Your task to perform on an android device: Open the calendar and show me this week's events? Image 0: 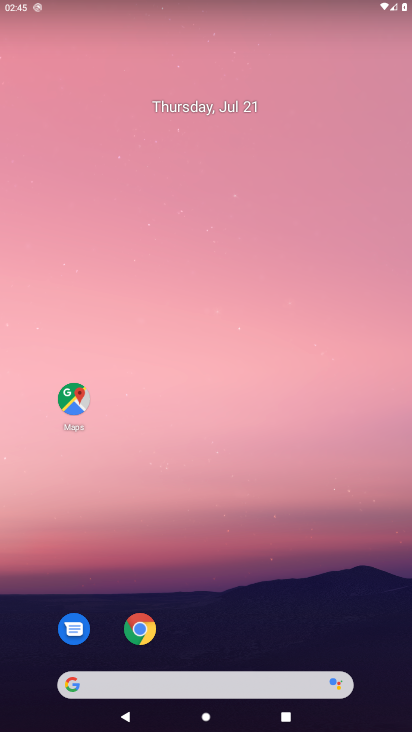
Step 0: drag from (55, 681) to (138, 296)
Your task to perform on an android device: Open the calendar and show me this week's events? Image 1: 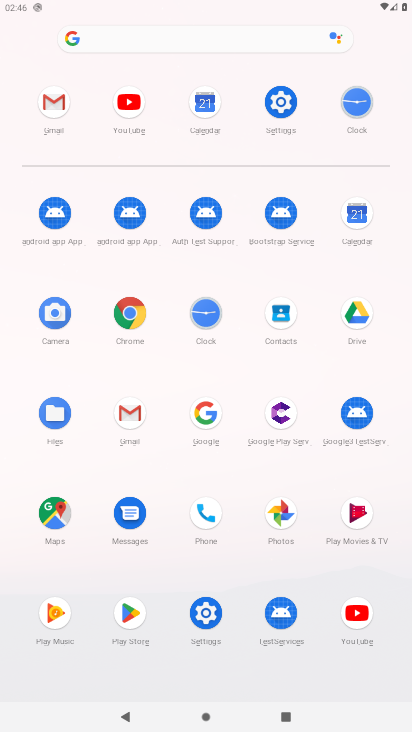
Step 1: click (357, 217)
Your task to perform on an android device: Open the calendar and show me this week's events? Image 2: 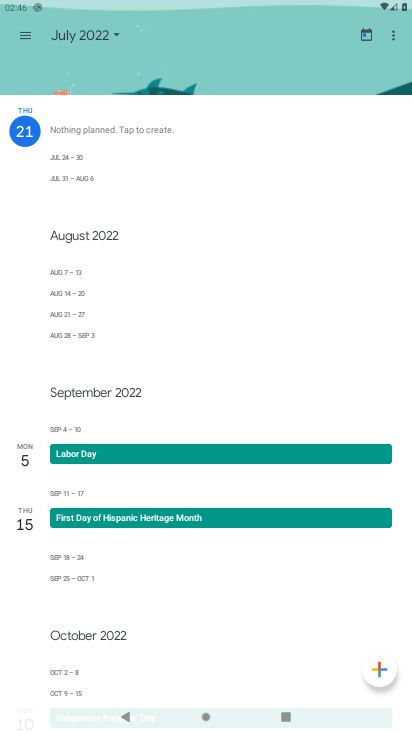
Step 2: click (83, 24)
Your task to perform on an android device: Open the calendar and show me this week's events? Image 3: 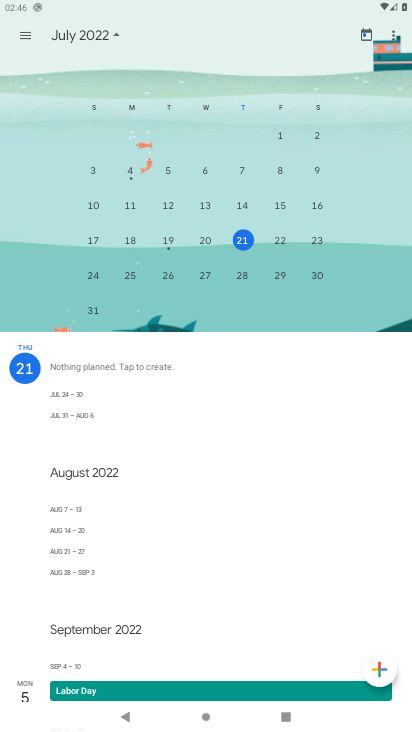
Step 3: task complete